Your task to perform on an android device: Go to eBay Image 0: 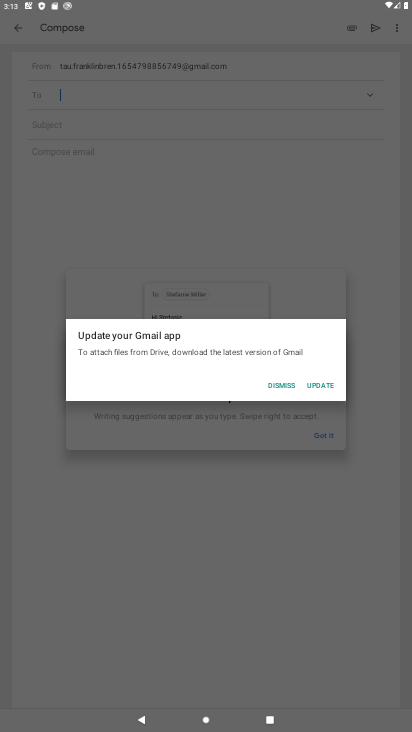
Step 0: press home button
Your task to perform on an android device: Go to eBay Image 1: 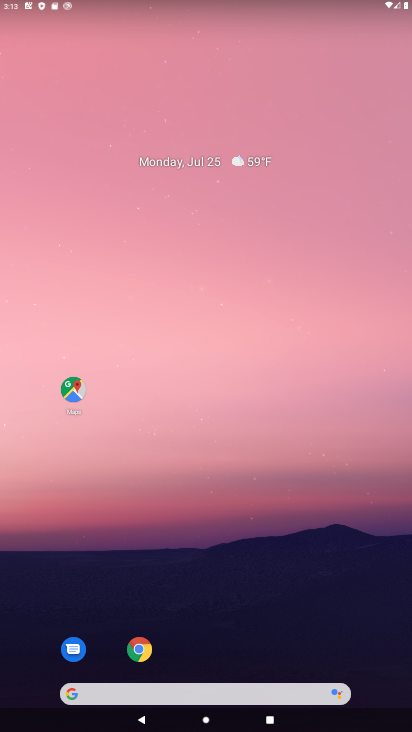
Step 1: click (257, 697)
Your task to perform on an android device: Go to eBay Image 2: 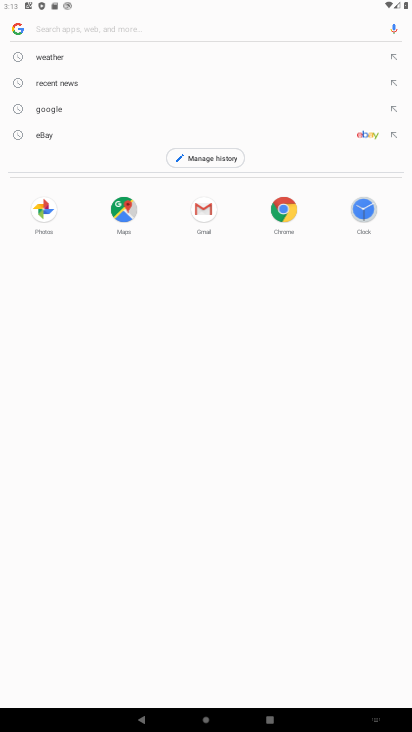
Step 2: click (43, 134)
Your task to perform on an android device: Go to eBay Image 3: 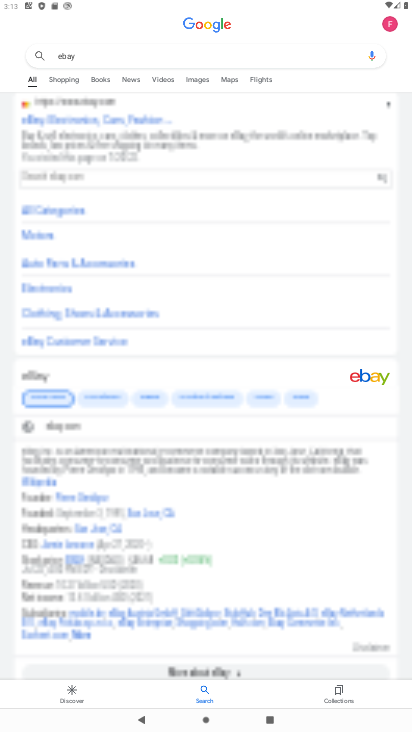
Step 3: click (88, 100)
Your task to perform on an android device: Go to eBay Image 4: 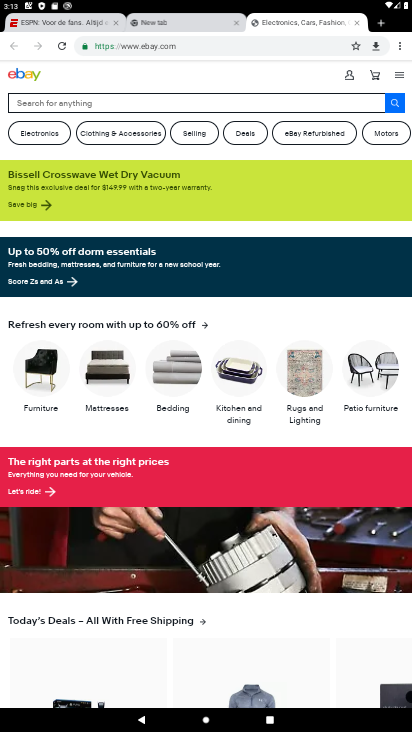
Step 4: task complete